Your task to perform on an android device: Go to ESPN.com Image 0: 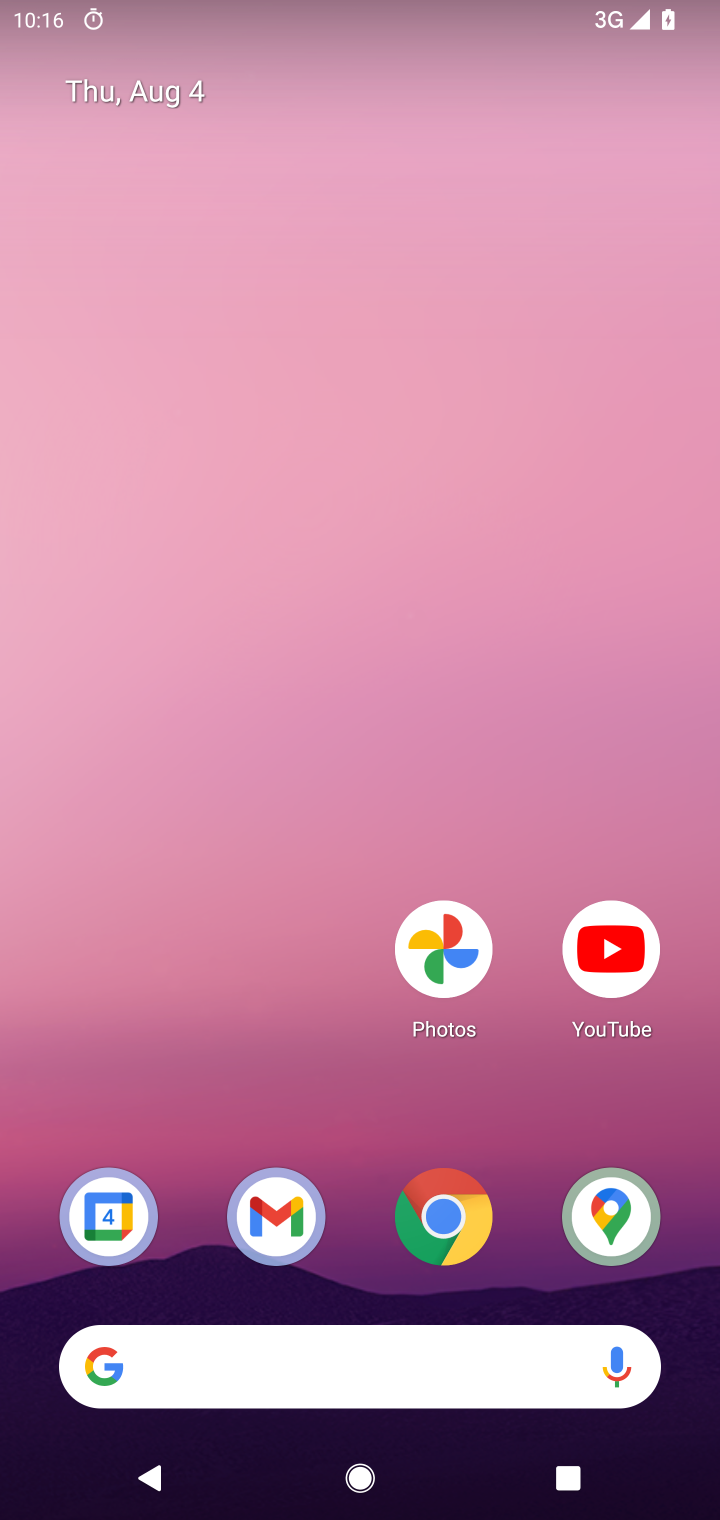
Step 0: drag from (386, 1023) to (388, 176)
Your task to perform on an android device: Go to ESPN.com Image 1: 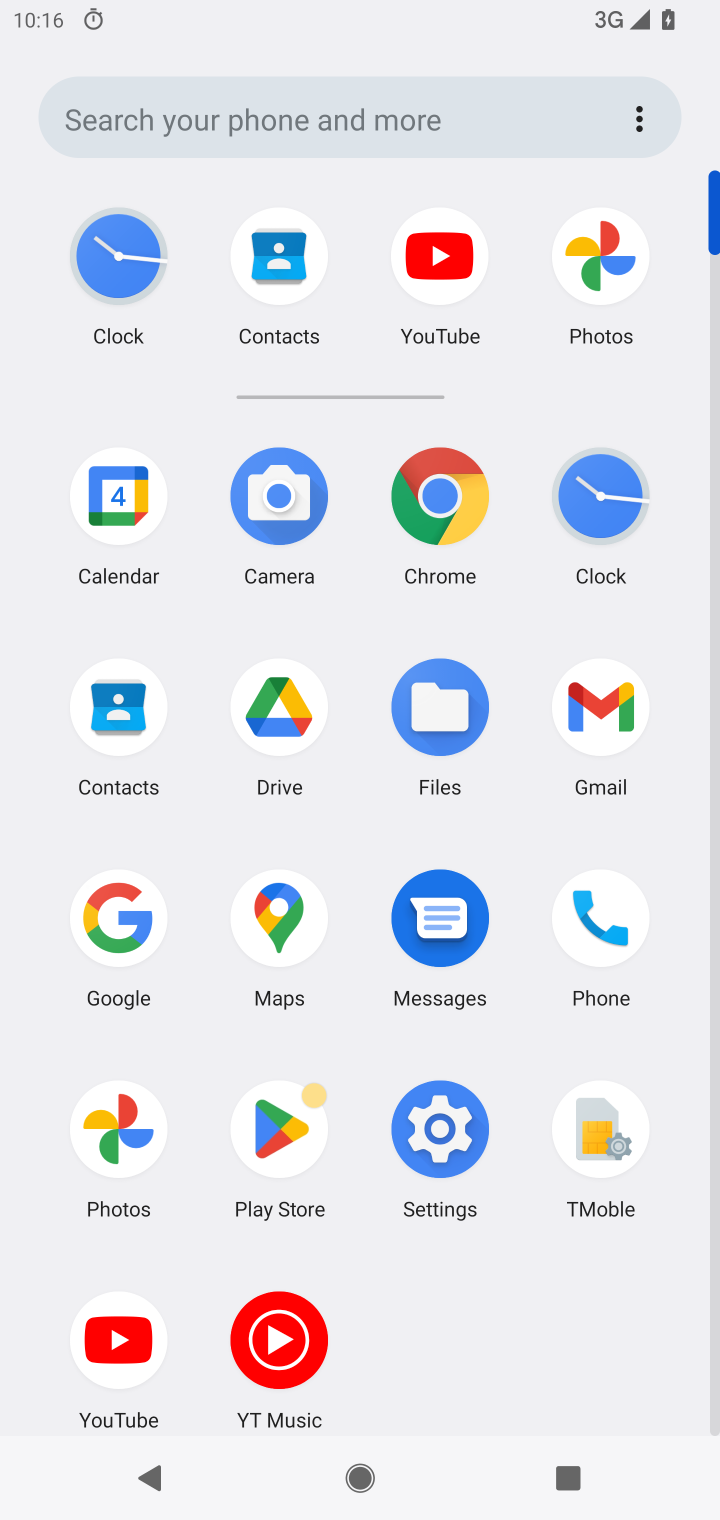
Step 1: click (431, 507)
Your task to perform on an android device: Go to ESPN.com Image 2: 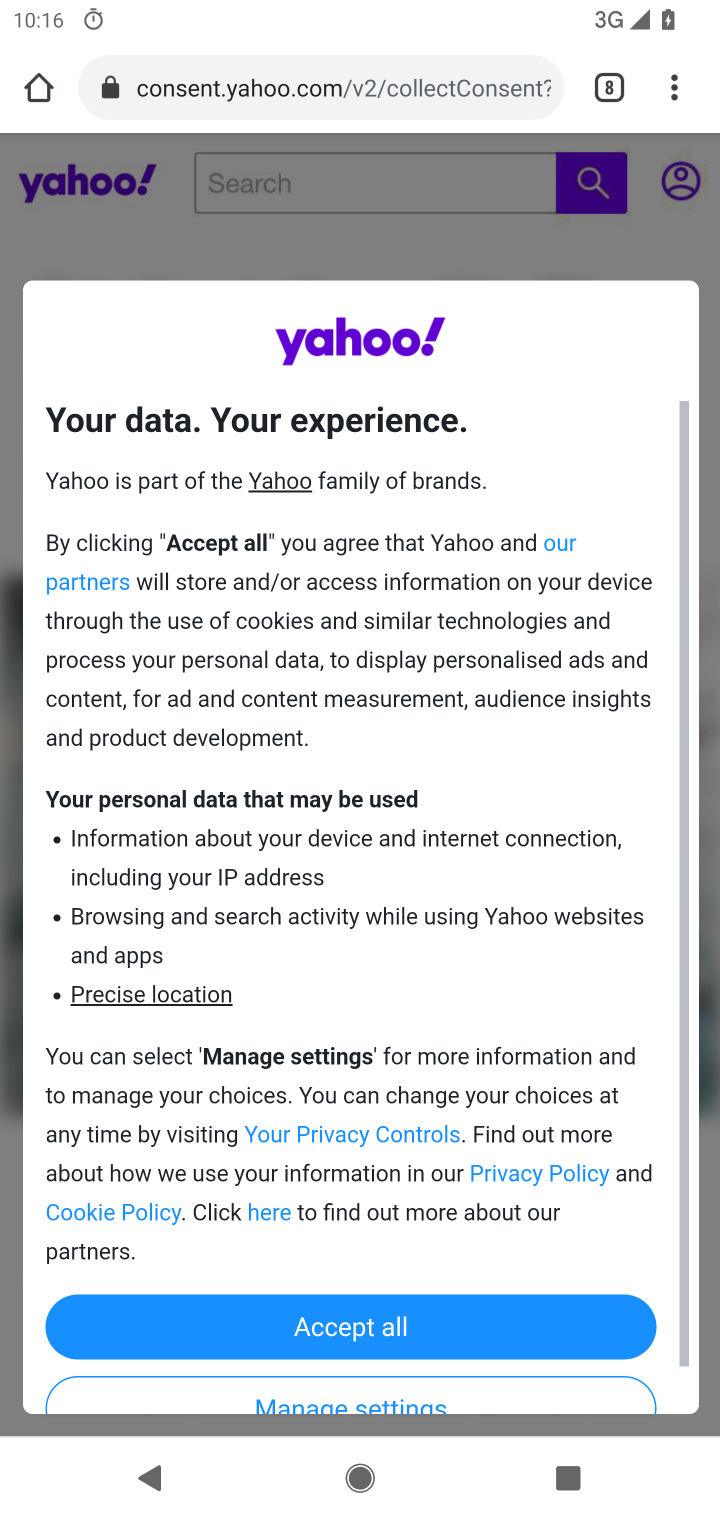
Step 2: click (673, 101)
Your task to perform on an android device: Go to ESPN.com Image 3: 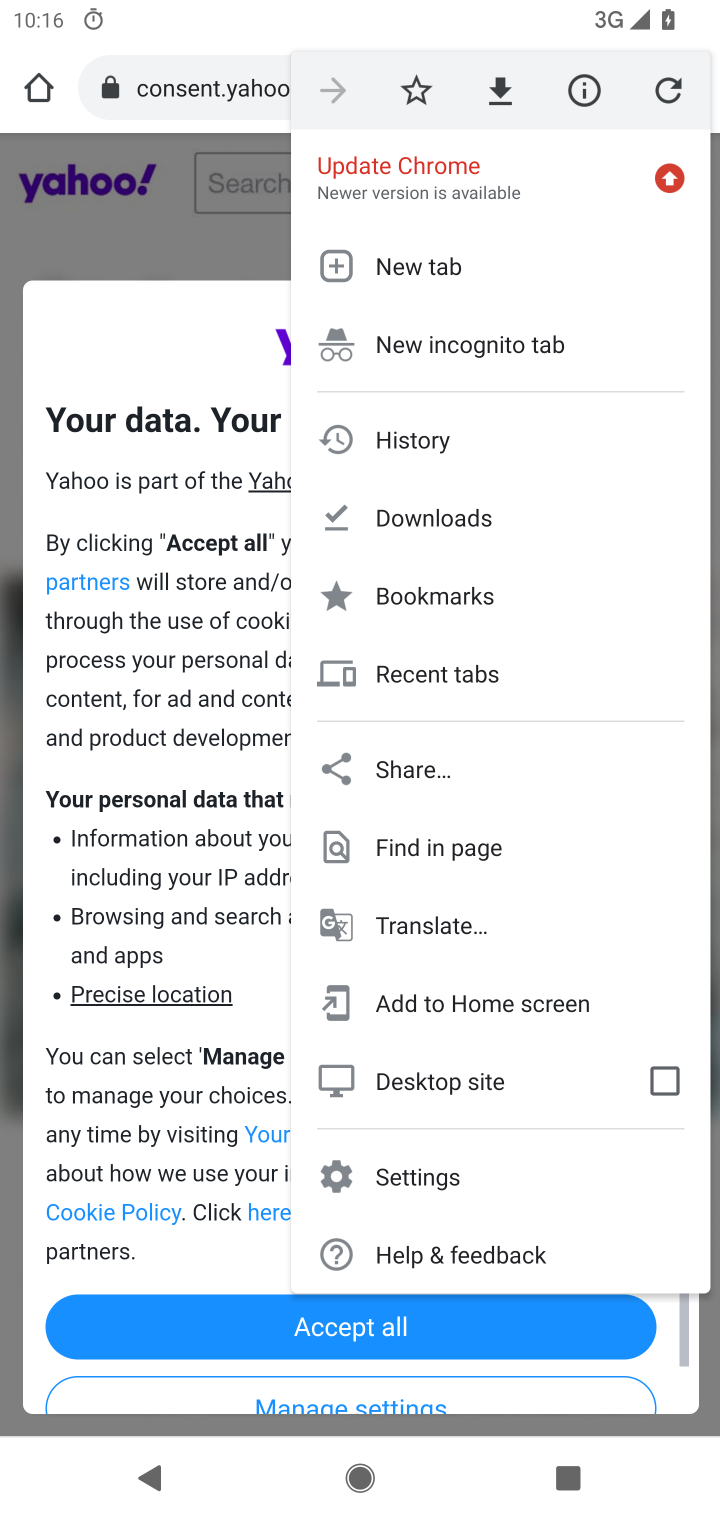
Step 3: click (393, 261)
Your task to perform on an android device: Go to ESPN.com Image 4: 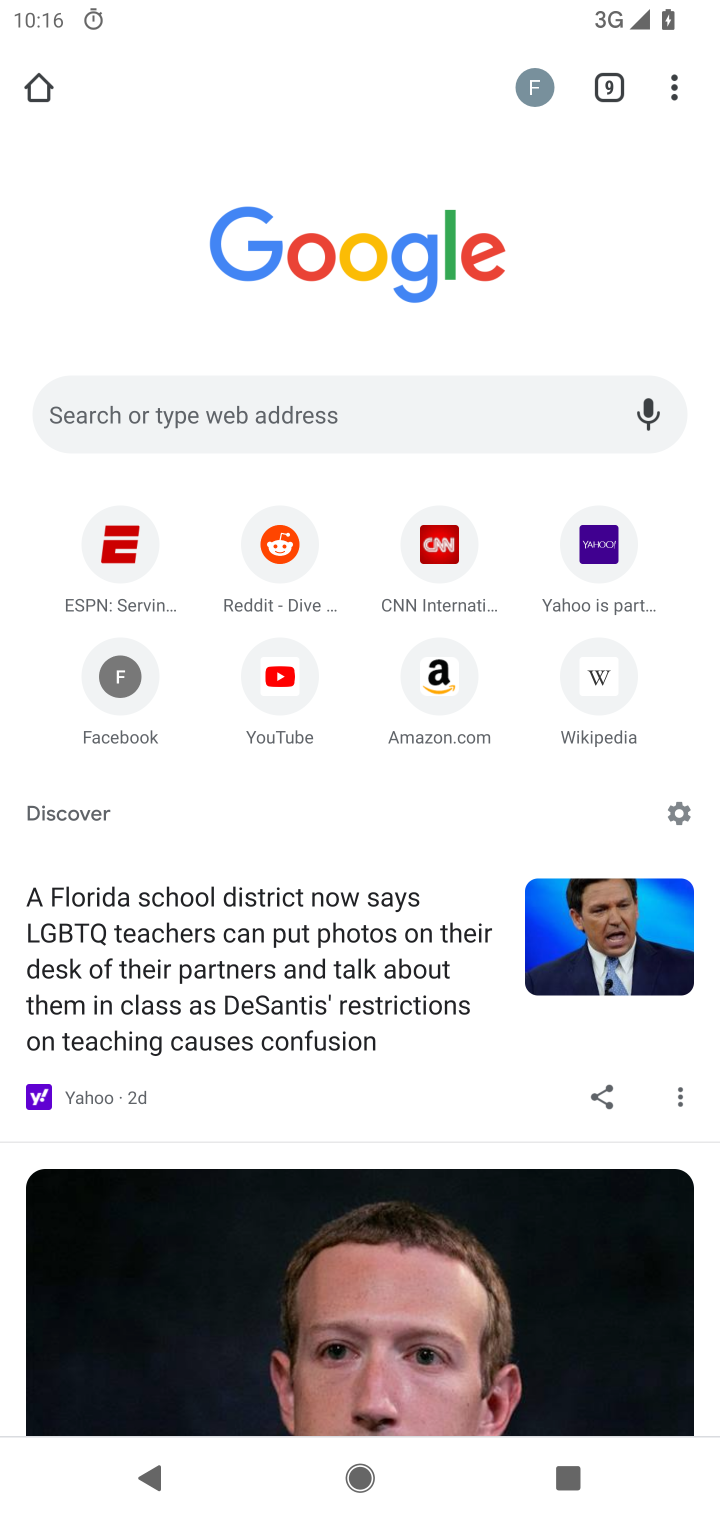
Step 4: click (161, 549)
Your task to perform on an android device: Go to ESPN.com Image 5: 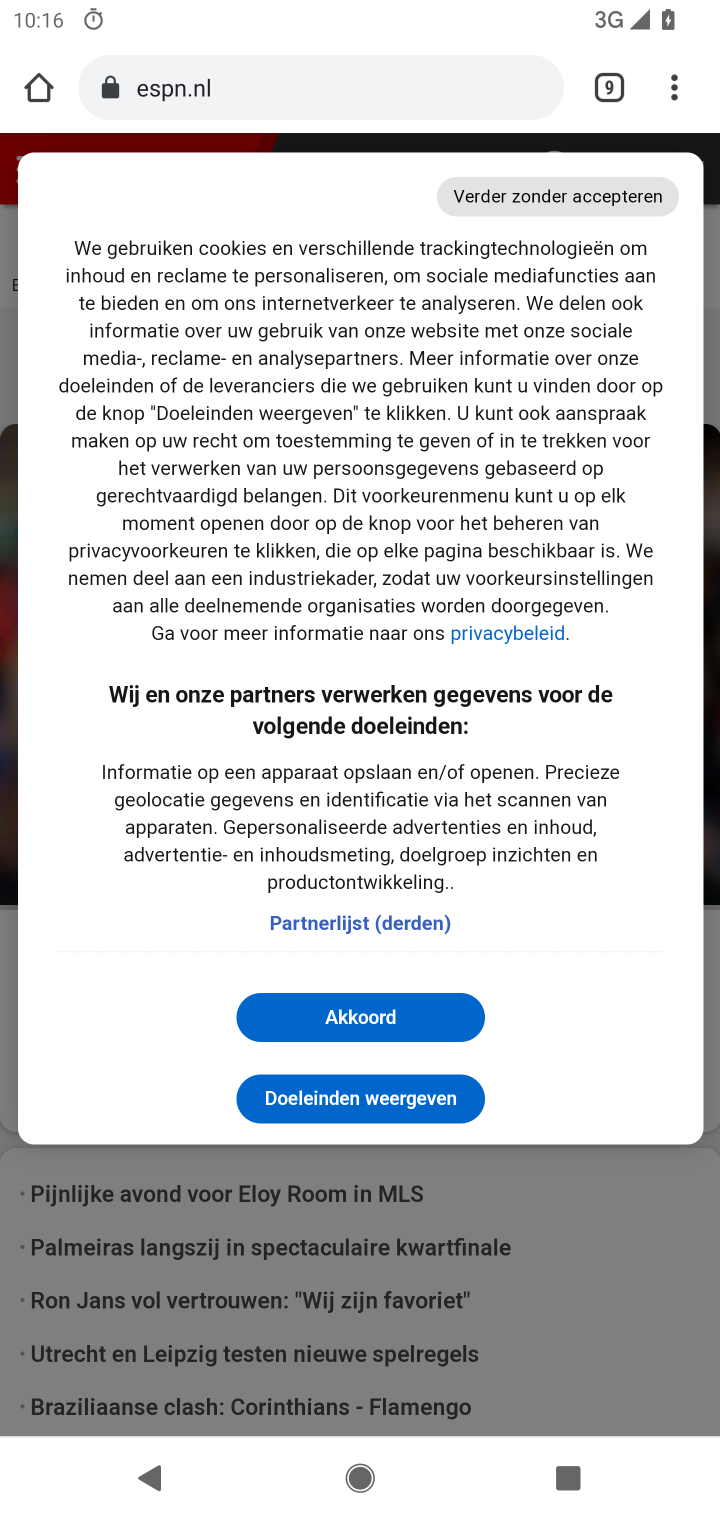
Step 5: click (408, 1024)
Your task to perform on an android device: Go to ESPN.com Image 6: 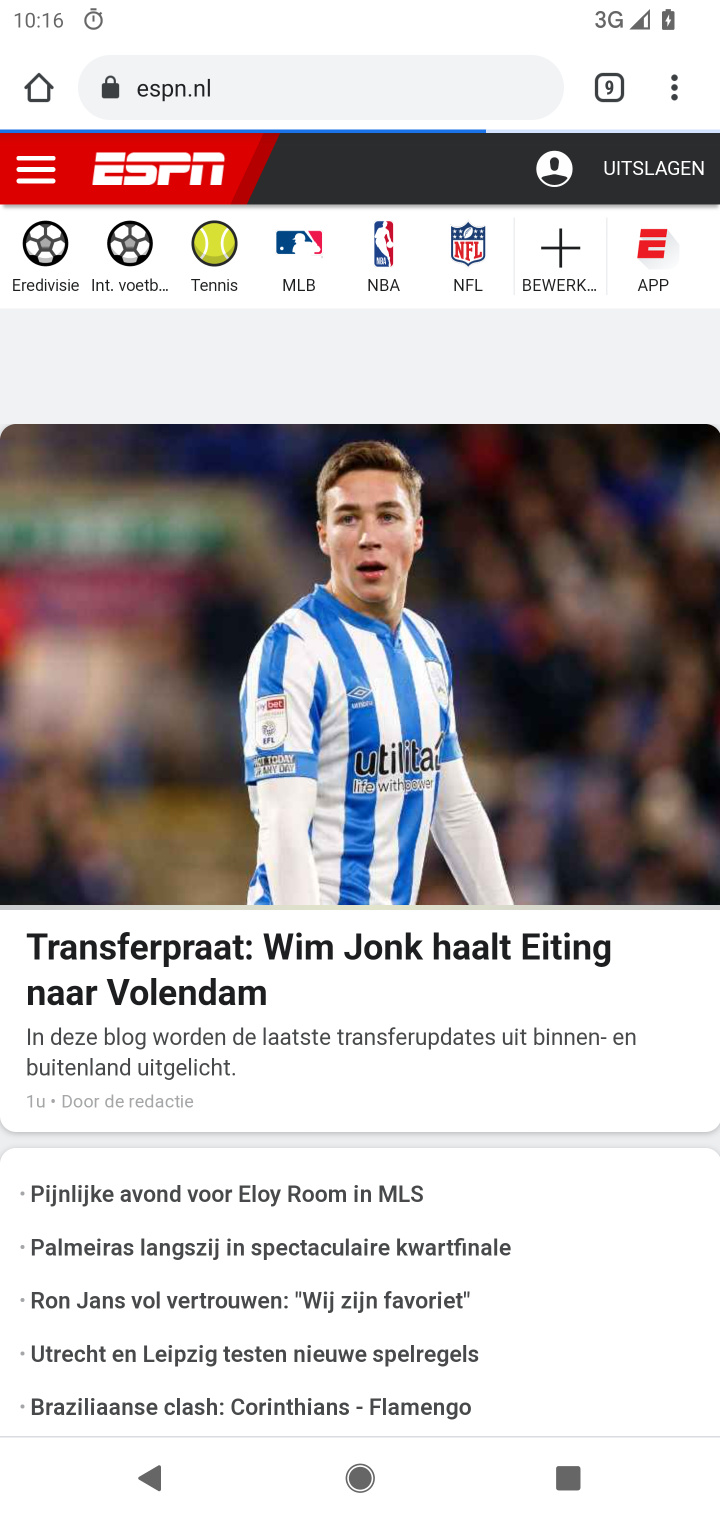
Step 6: task complete